Your task to perform on an android device: turn off sleep mode Image 0: 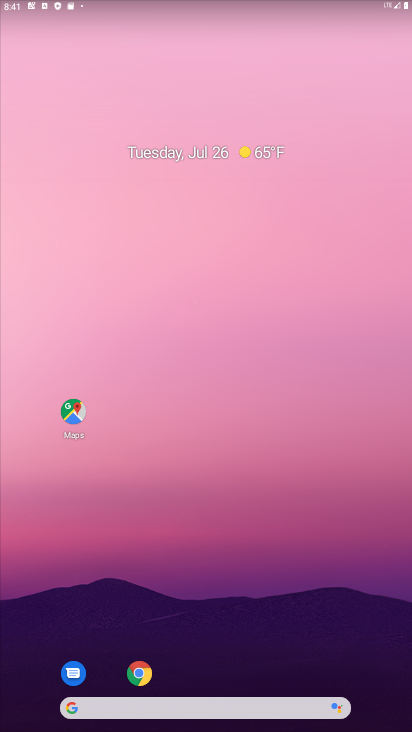
Step 0: drag from (223, 648) to (256, 67)
Your task to perform on an android device: turn off sleep mode Image 1: 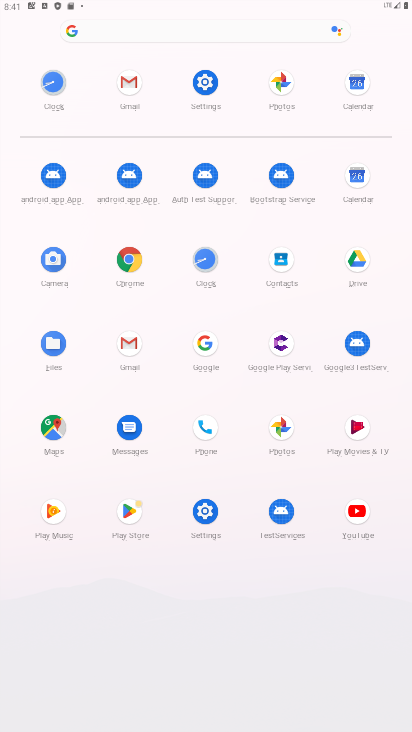
Step 1: click (206, 84)
Your task to perform on an android device: turn off sleep mode Image 2: 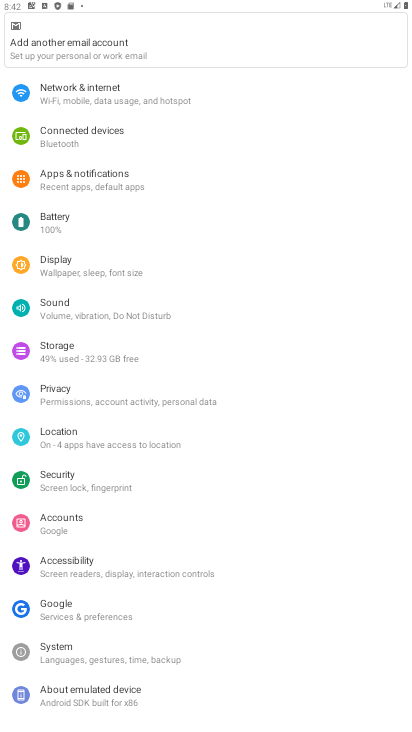
Step 2: click (110, 266)
Your task to perform on an android device: turn off sleep mode Image 3: 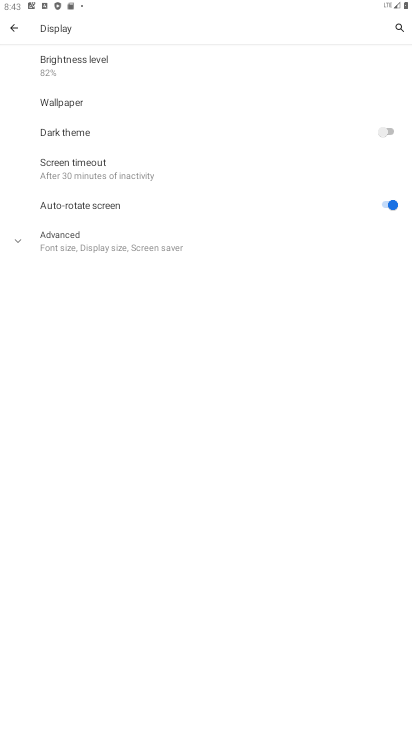
Step 3: click (96, 171)
Your task to perform on an android device: turn off sleep mode Image 4: 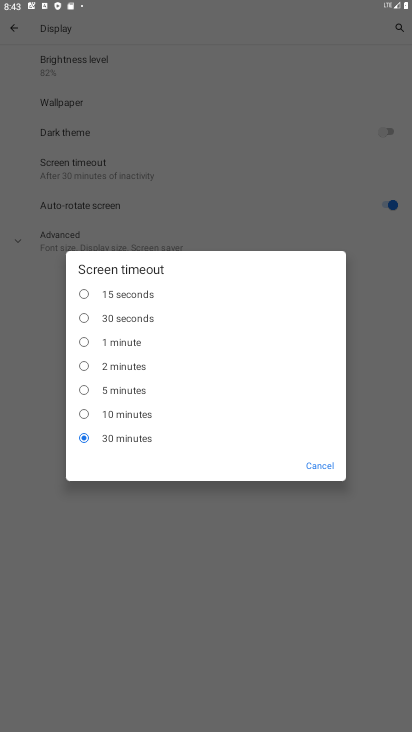
Step 4: click (142, 311)
Your task to perform on an android device: turn off sleep mode Image 5: 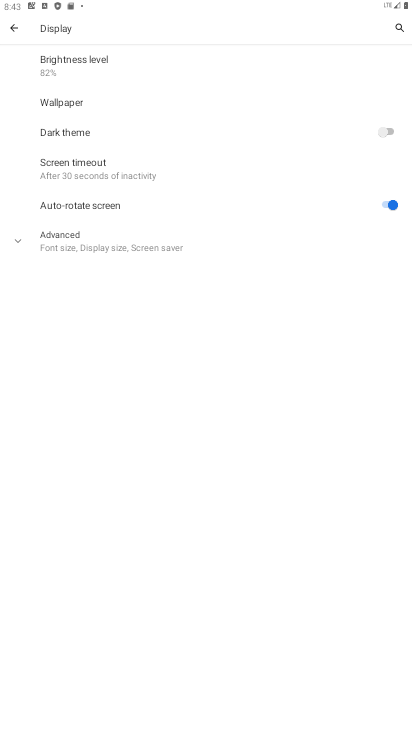
Step 5: task complete